Your task to perform on an android device: Toggle the flashlight Image 0: 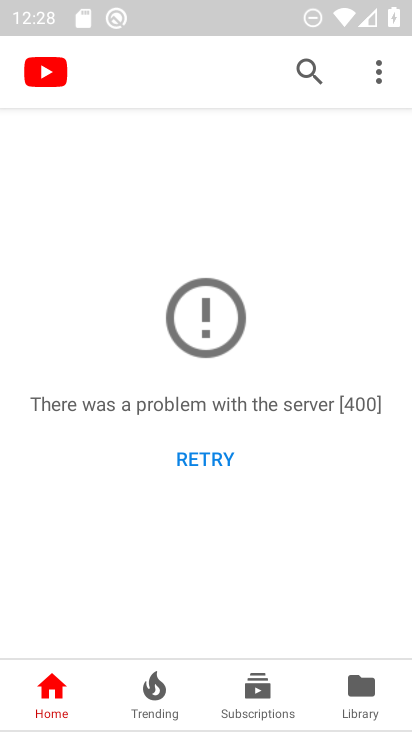
Step 0: press home button
Your task to perform on an android device: Toggle the flashlight Image 1: 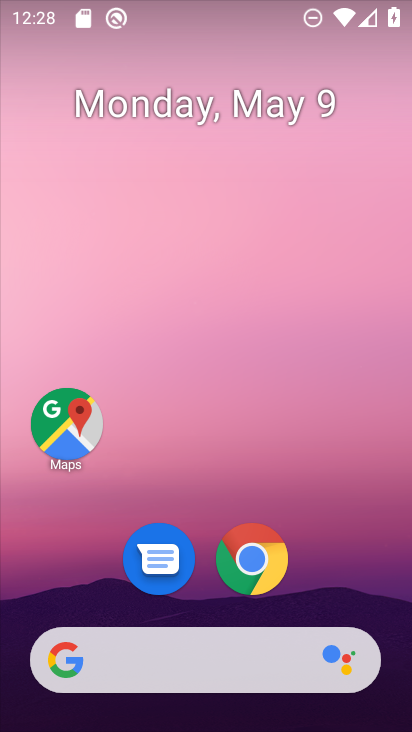
Step 1: task complete